Your task to perform on an android device: Check the news Image 0: 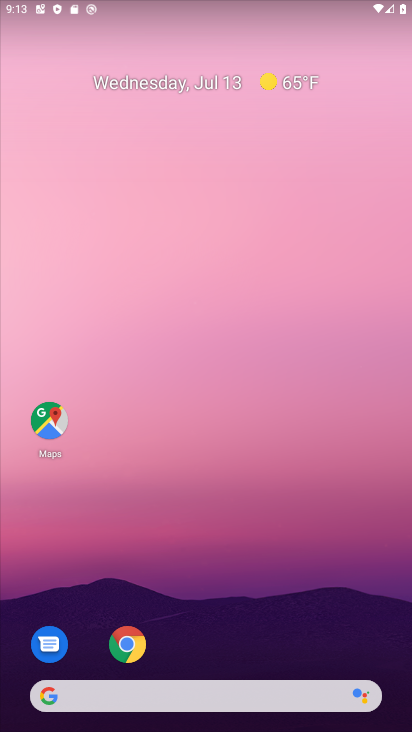
Step 0: drag from (269, 519) to (171, 4)
Your task to perform on an android device: Check the news Image 1: 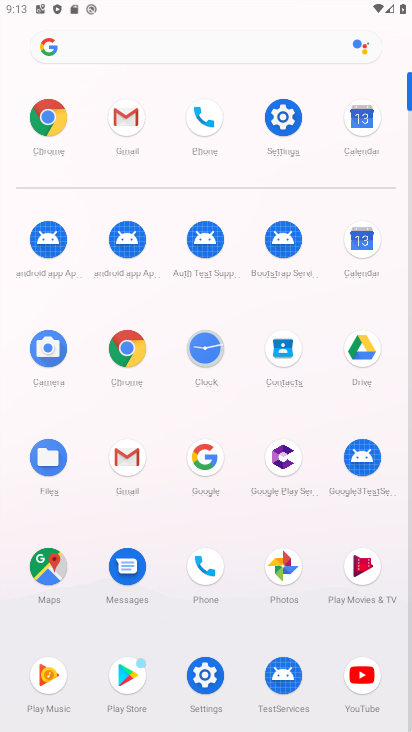
Step 1: click (57, 120)
Your task to perform on an android device: Check the news Image 2: 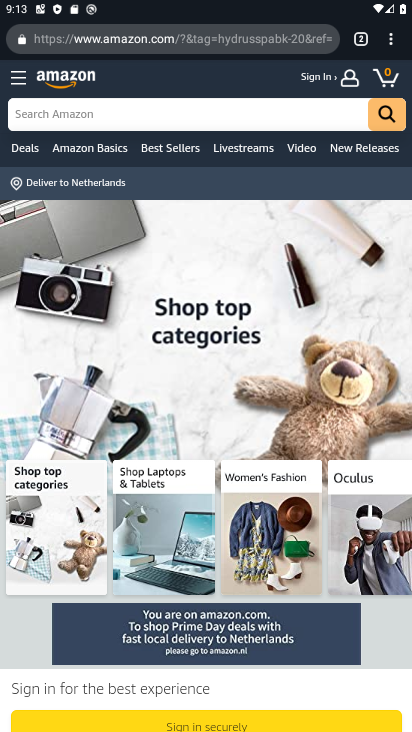
Step 2: task complete